Your task to perform on an android device: Go to calendar. Show me events next week Image 0: 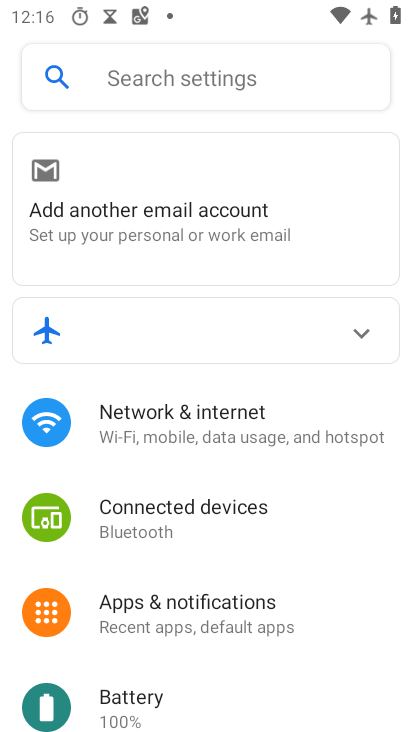
Step 0: press home button
Your task to perform on an android device: Go to calendar. Show me events next week Image 1: 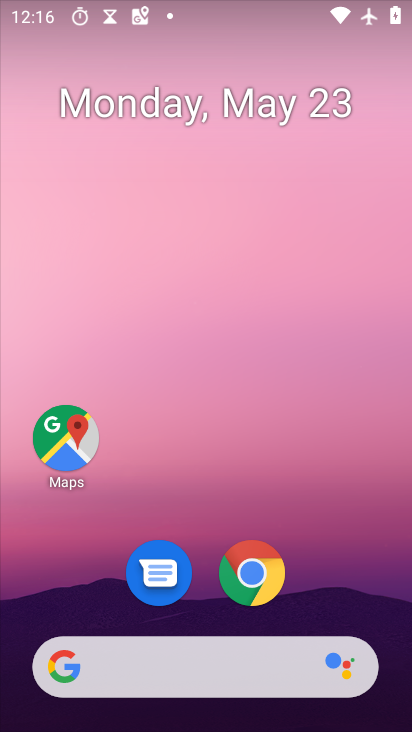
Step 1: drag from (169, 656) to (286, 146)
Your task to perform on an android device: Go to calendar. Show me events next week Image 2: 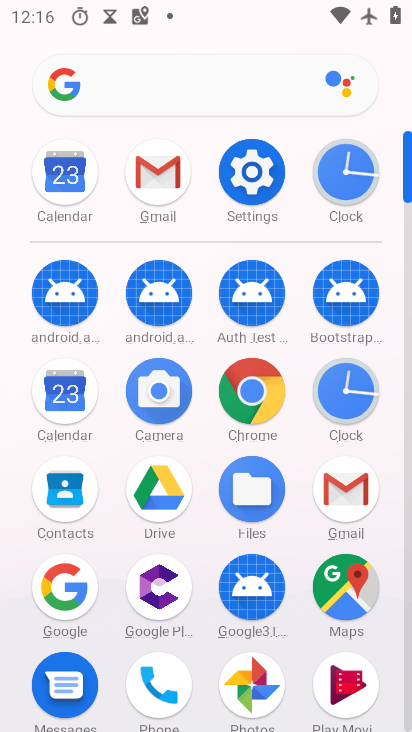
Step 2: click (69, 187)
Your task to perform on an android device: Go to calendar. Show me events next week Image 3: 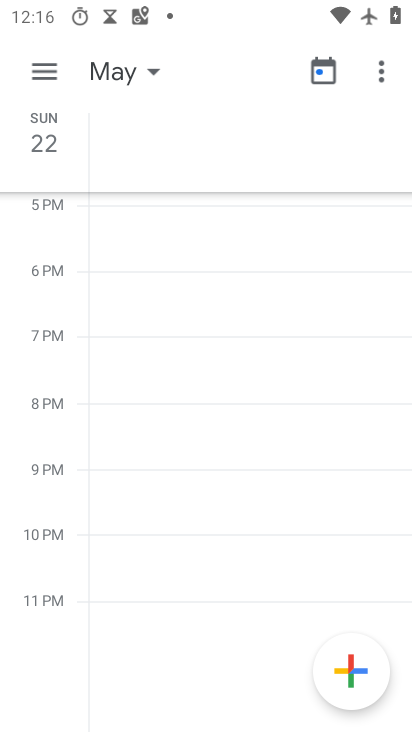
Step 3: click (112, 73)
Your task to perform on an android device: Go to calendar. Show me events next week Image 4: 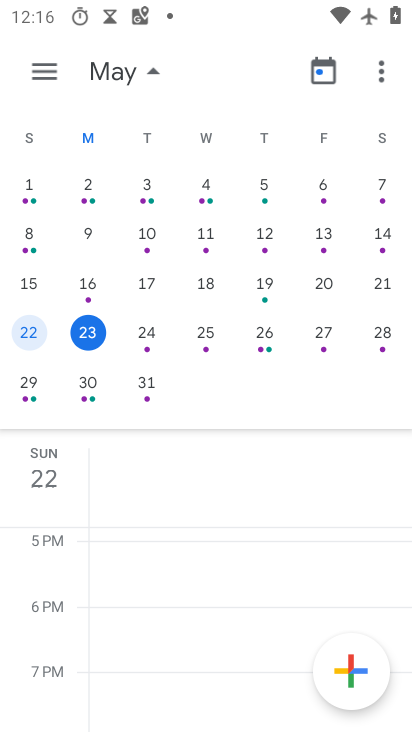
Step 4: click (34, 377)
Your task to perform on an android device: Go to calendar. Show me events next week Image 5: 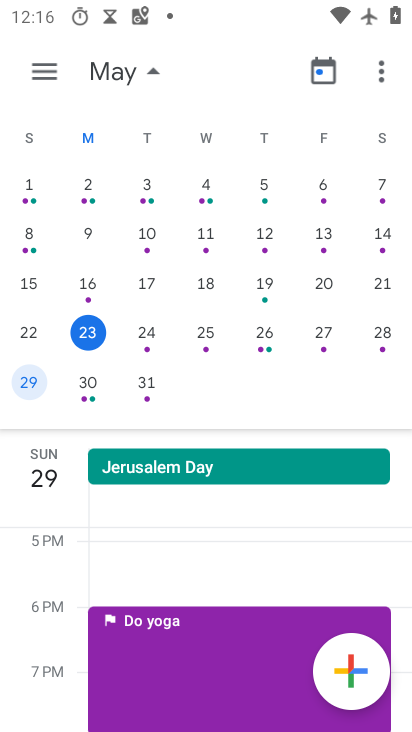
Step 5: click (52, 72)
Your task to perform on an android device: Go to calendar. Show me events next week Image 6: 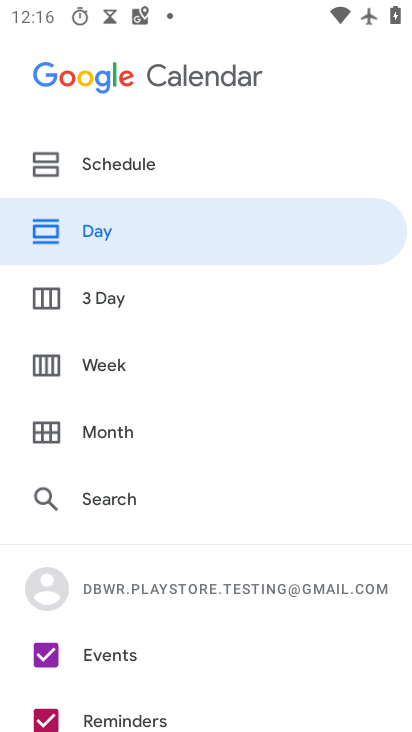
Step 6: click (114, 365)
Your task to perform on an android device: Go to calendar. Show me events next week Image 7: 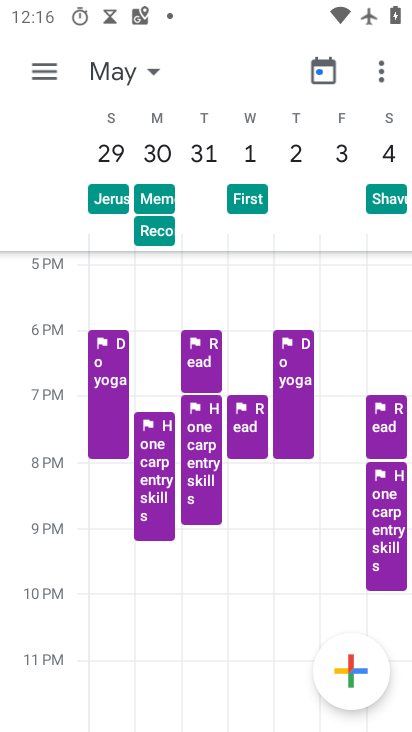
Step 7: click (40, 79)
Your task to perform on an android device: Go to calendar. Show me events next week Image 8: 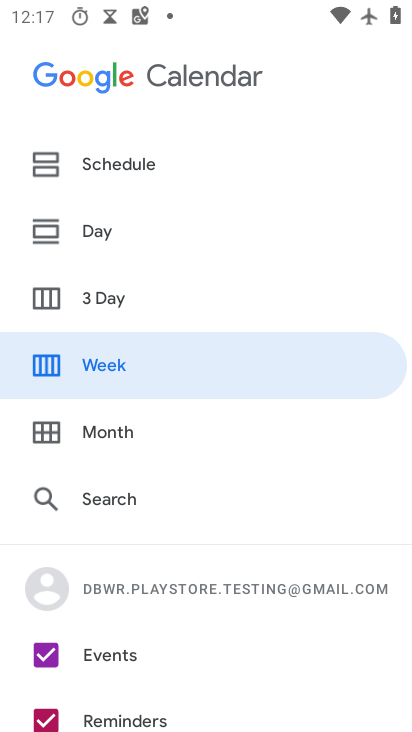
Step 8: click (106, 158)
Your task to perform on an android device: Go to calendar. Show me events next week Image 9: 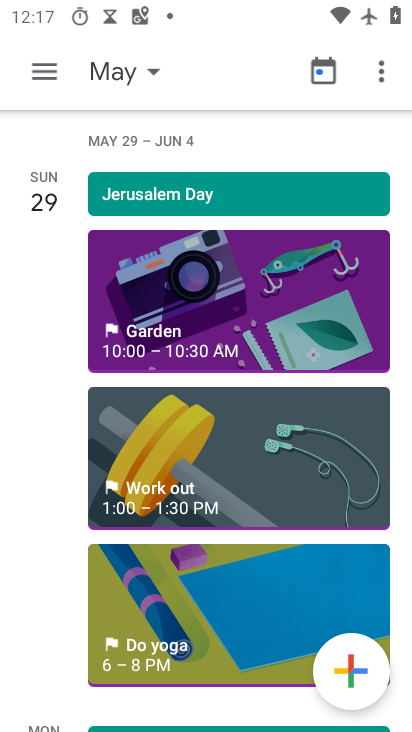
Step 9: click (168, 293)
Your task to perform on an android device: Go to calendar. Show me events next week Image 10: 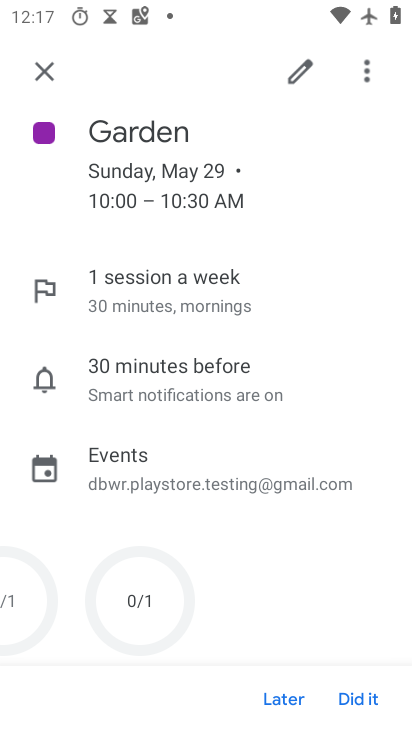
Step 10: task complete